Your task to perform on an android device: Check the news Image 0: 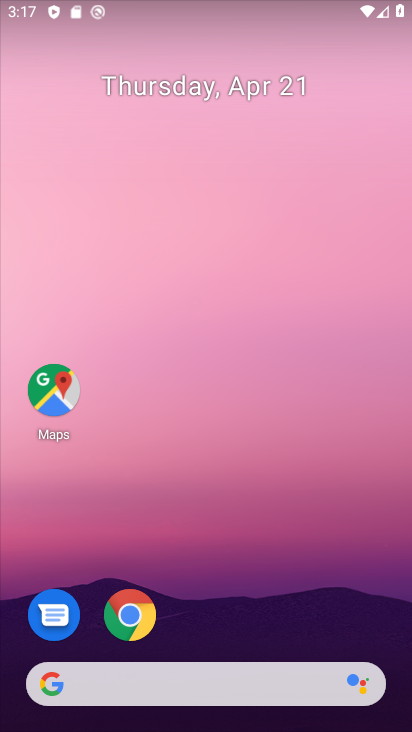
Step 0: drag from (321, 567) to (231, 7)
Your task to perform on an android device: Check the news Image 1: 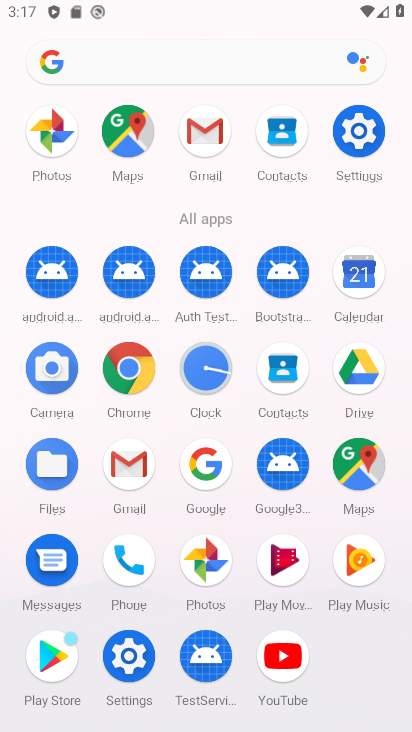
Step 1: drag from (3, 527) to (0, 293)
Your task to perform on an android device: Check the news Image 2: 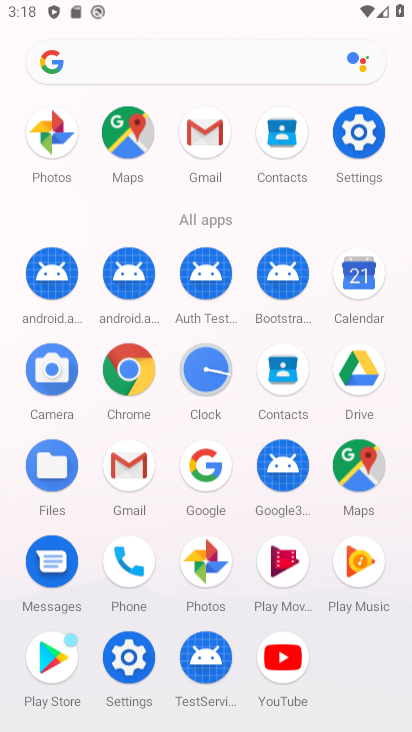
Step 2: click (175, 63)
Your task to perform on an android device: Check the news Image 3: 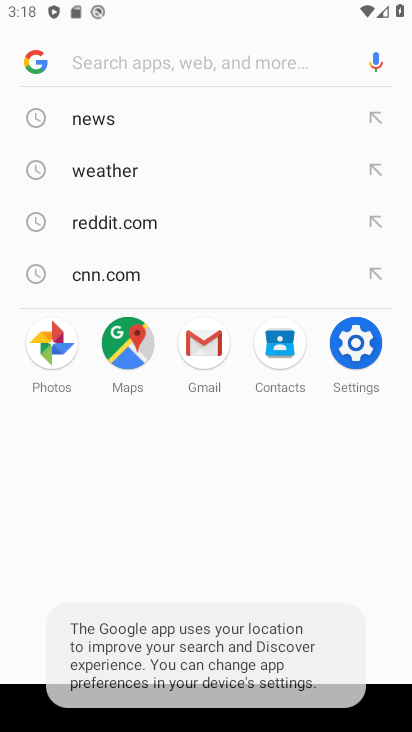
Step 3: click (141, 113)
Your task to perform on an android device: Check the news Image 4: 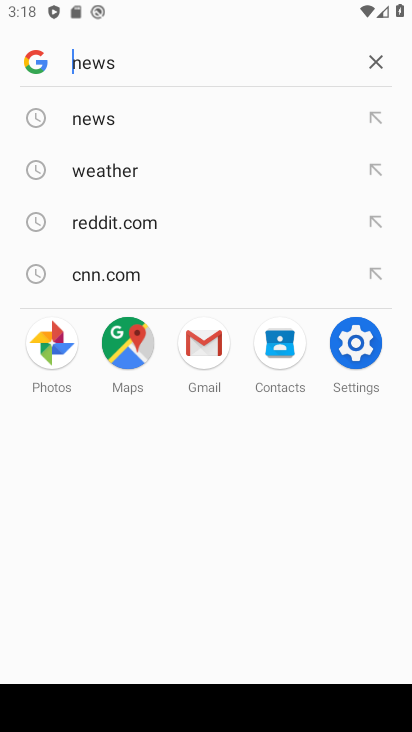
Step 4: click (141, 113)
Your task to perform on an android device: Check the news Image 5: 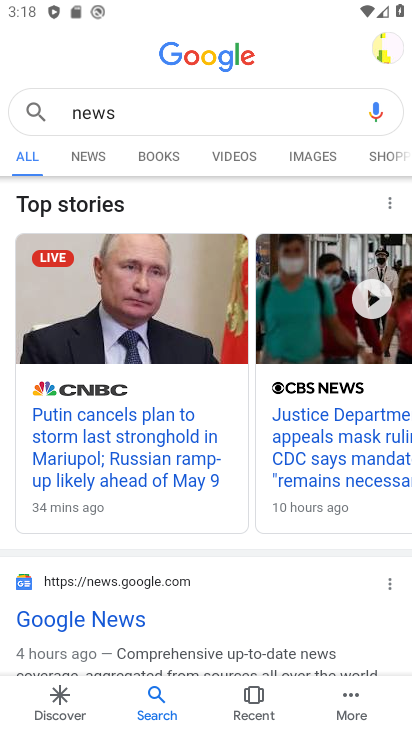
Step 5: task complete